Your task to perform on an android device: stop showing notifications on the lock screen Image 0: 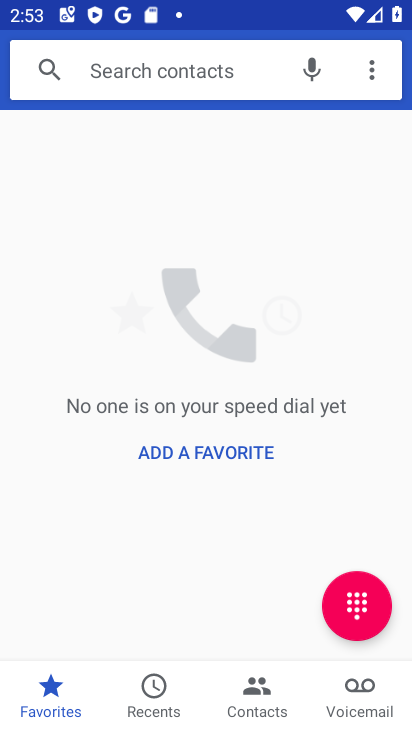
Step 0: press back button
Your task to perform on an android device: stop showing notifications on the lock screen Image 1: 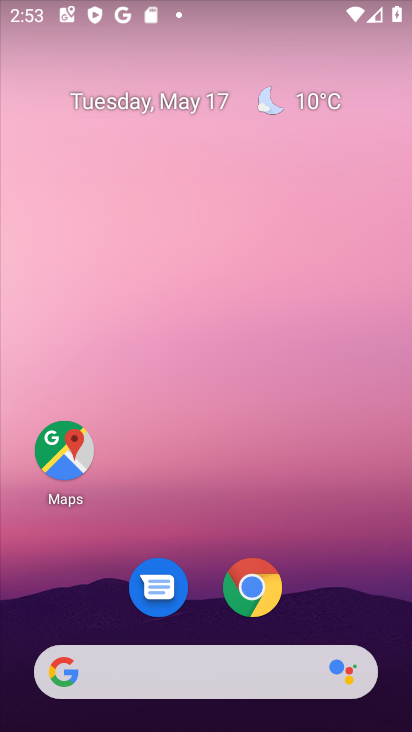
Step 1: drag from (341, 582) to (279, 52)
Your task to perform on an android device: stop showing notifications on the lock screen Image 2: 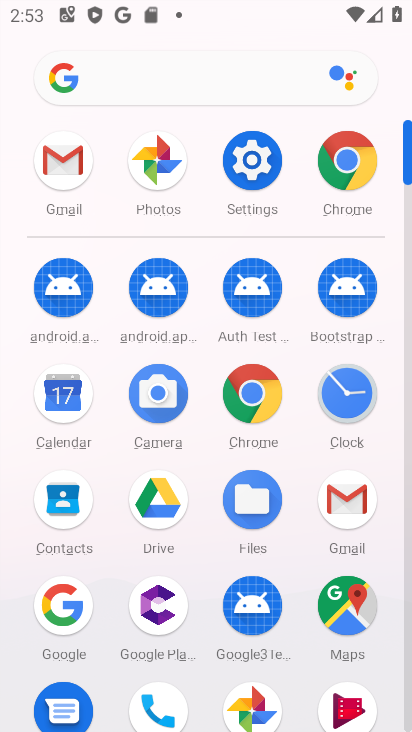
Step 2: drag from (18, 565) to (16, 185)
Your task to perform on an android device: stop showing notifications on the lock screen Image 3: 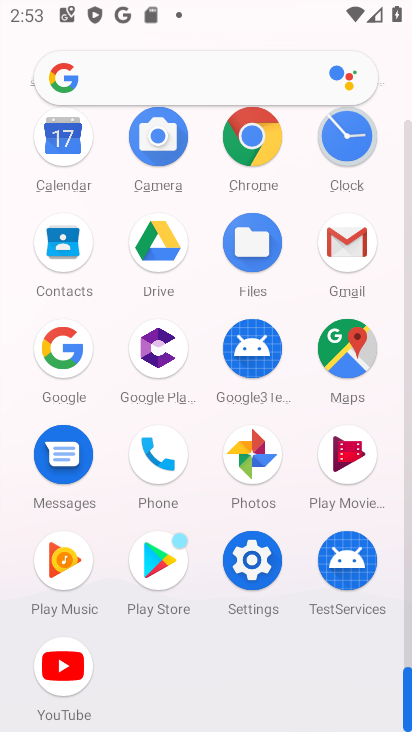
Step 3: click (251, 549)
Your task to perform on an android device: stop showing notifications on the lock screen Image 4: 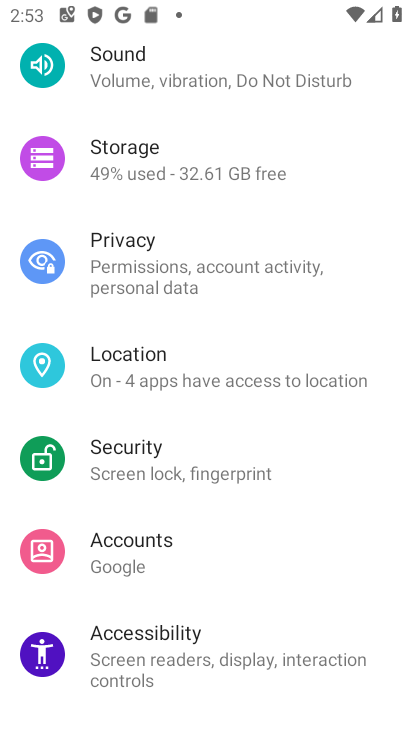
Step 4: drag from (286, 209) to (276, 651)
Your task to perform on an android device: stop showing notifications on the lock screen Image 5: 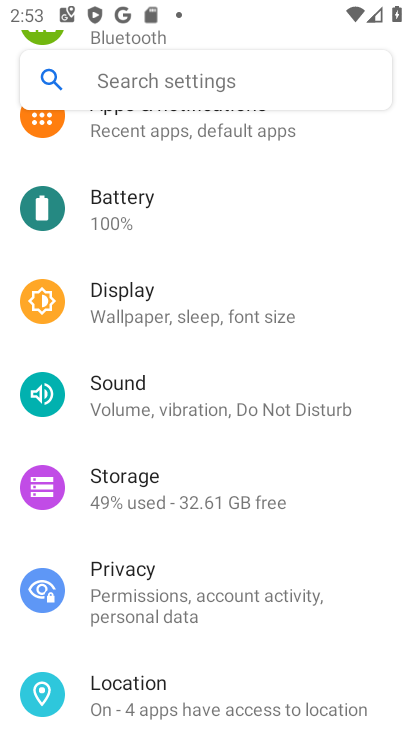
Step 5: drag from (264, 165) to (222, 651)
Your task to perform on an android device: stop showing notifications on the lock screen Image 6: 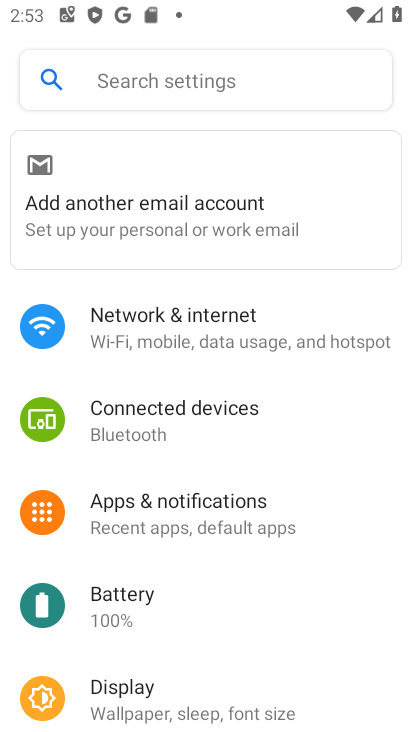
Step 6: click (204, 501)
Your task to perform on an android device: stop showing notifications on the lock screen Image 7: 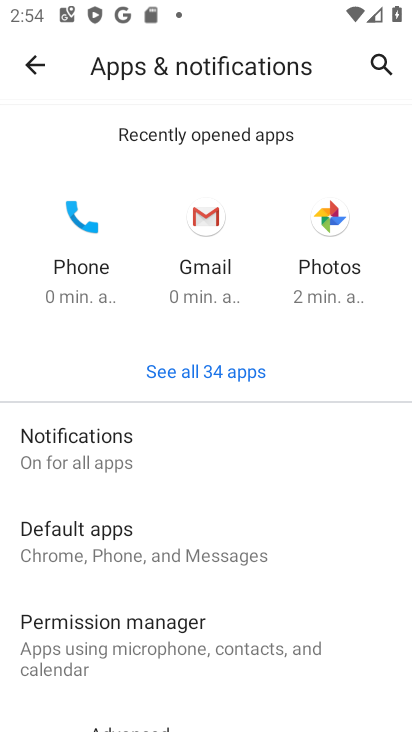
Step 7: click (168, 464)
Your task to perform on an android device: stop showing notifications on the lock screen Image 8: 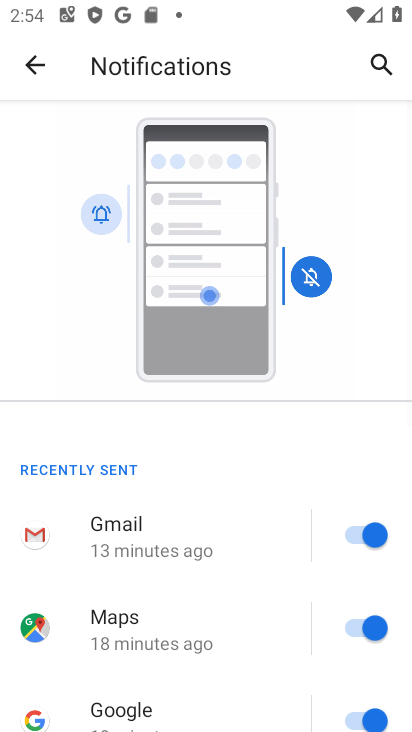
Step 8: drag from (204, 610) to (225, 144)
Your task to perform on an android device: stop showing notifications on the lock screen Image 9: 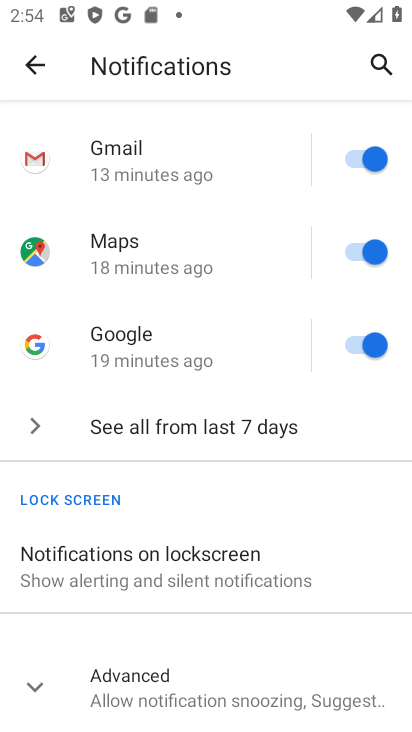
Step 9: drag from (216, 535) to (214, 183)
Your task to perform on an android device: stop showing notifications on the lock screen Image 10: 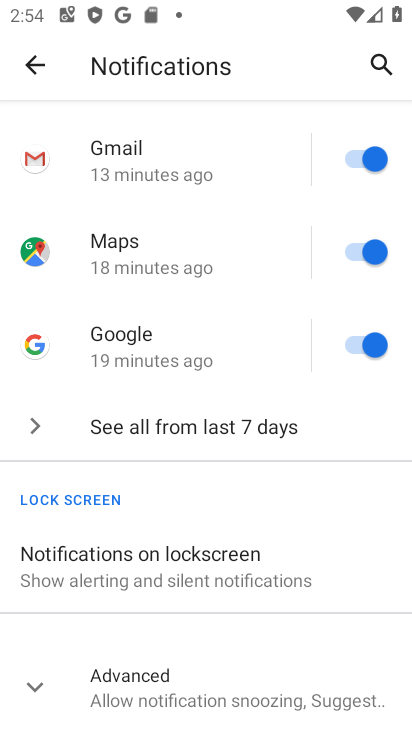
Step 10: click (41, 691)
Your task to perform on an android device: stop showing notifications on the lock screen Image 11: 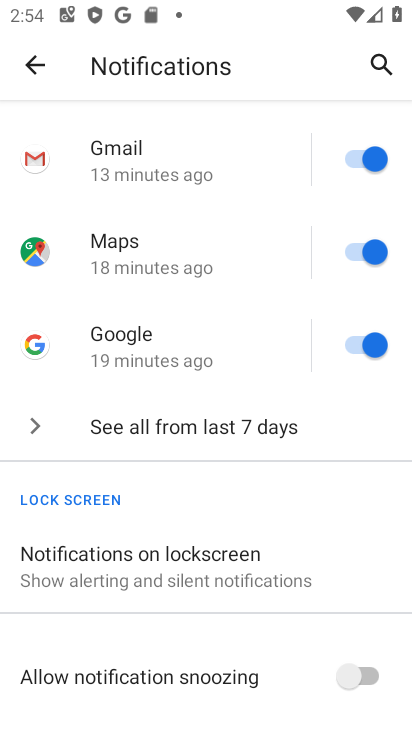
Step 11: click (141, 584)
Your task to perform on an android device: stop showing notifications on the lock screen Image 12: 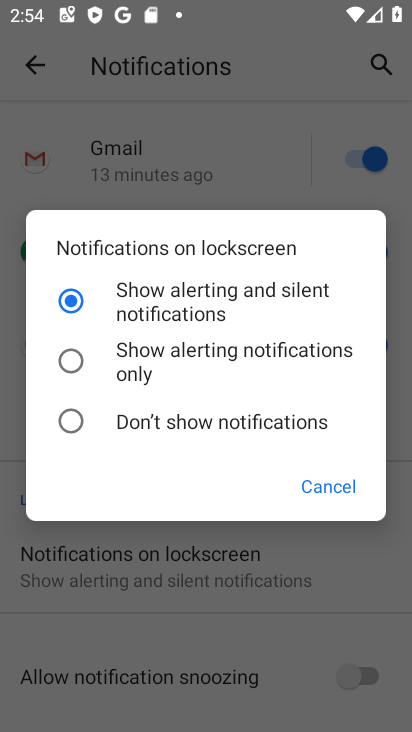
Step 12: click (149, 417)
Your task to perform on an android device: stop showing notifications on the lock screen Image 13: 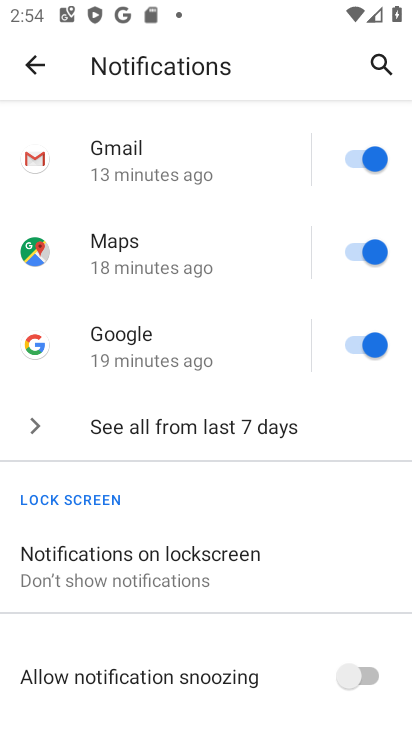
Step 13: task complete